Your task to perform on an android device: check the backup settings in the google photos Image 0: 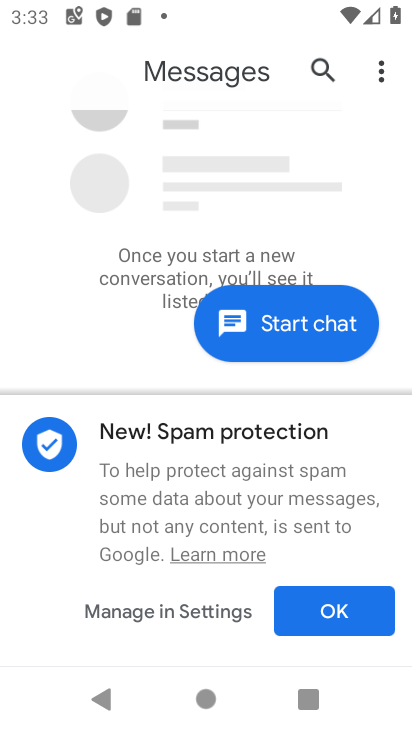
Step 0: press home button
Your task to perform on an android device: check the backup settings in the google photos Image 1: 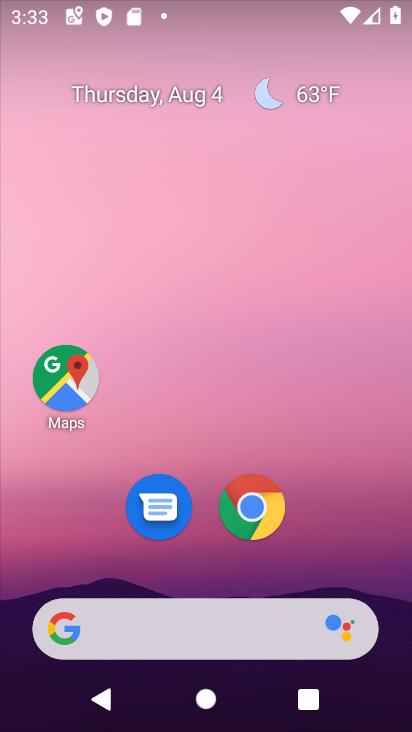
Step 1: drag from (62, 650) to (263, 89)
Your task to perform on an android device: check the backup settings in the google photos Image 2: 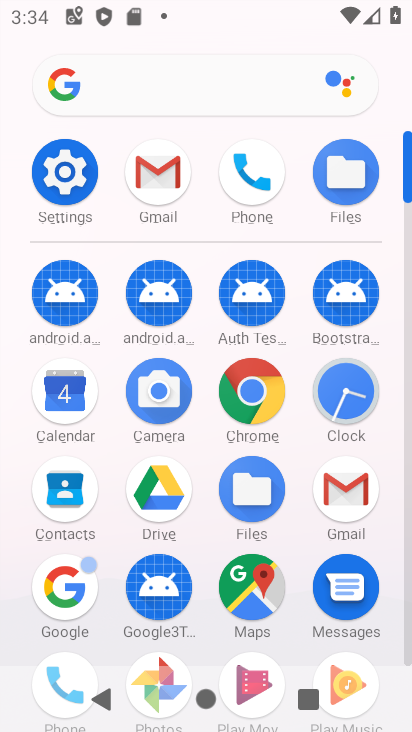
Step 2: drag from (23, 596) to (171, 0)
Your task to perform on an android device: check the backup settings in the google photos Image 3: 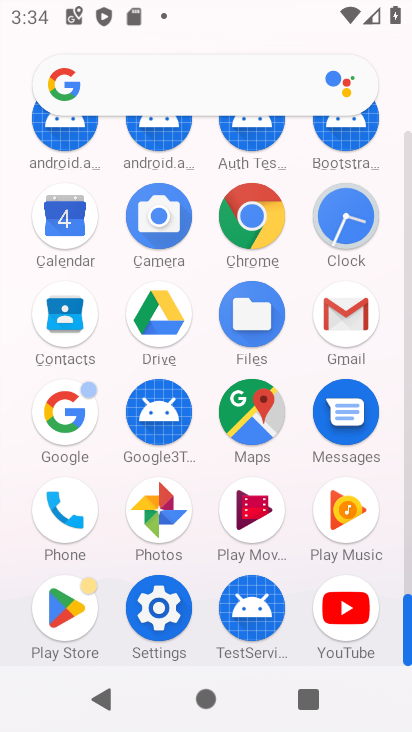
Step 3: click (164, 504)
Your task to perform on an android device: check the backup settings in the google photos Image 4: 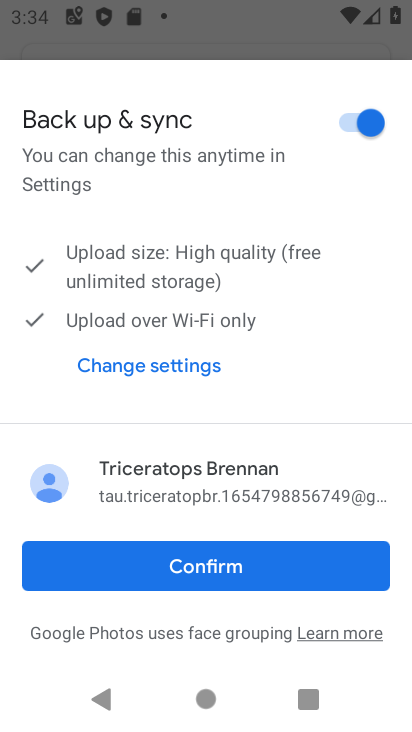
Step 4: click (233, 556)
Your task to perform on an android device: check the backup settings in the google photos Image 5: 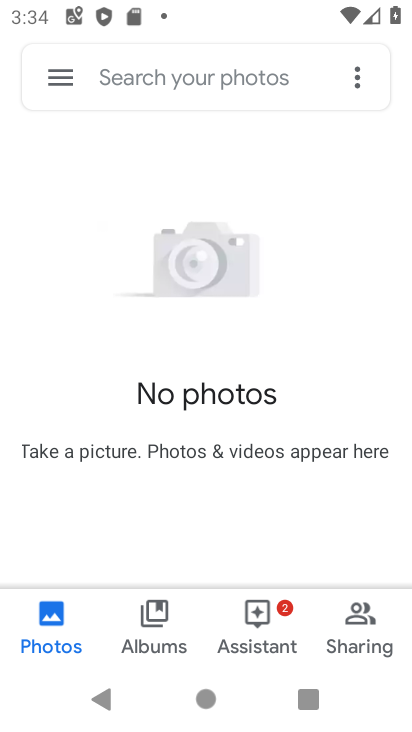
Step 5: click (55, 66)
Your task to perform on an android device: check the backup settings in the google photos Image 6: 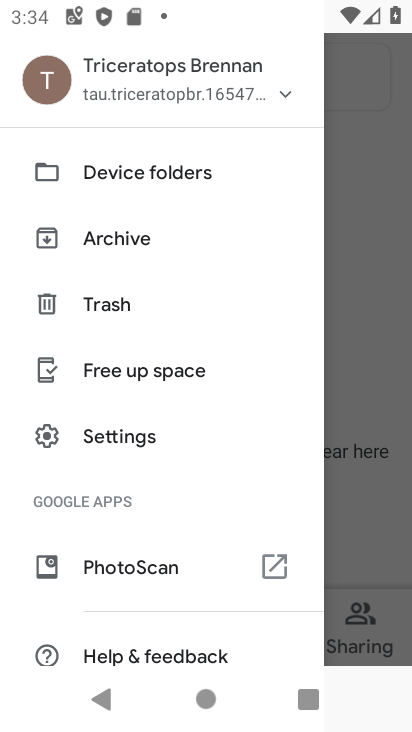
Step 6: click (105, 441)
Your task to perform on an android device: check the backup settings in the google photos Image 7: 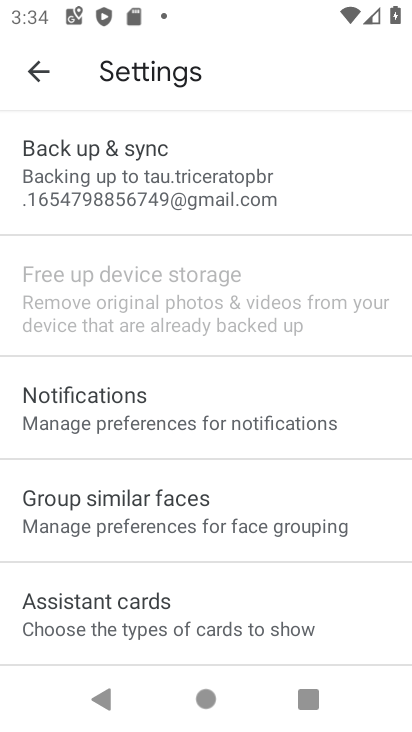
Step 7: click (161, 184)
Your task to perform on an android device: check the backup settings in the google photos Image 8: 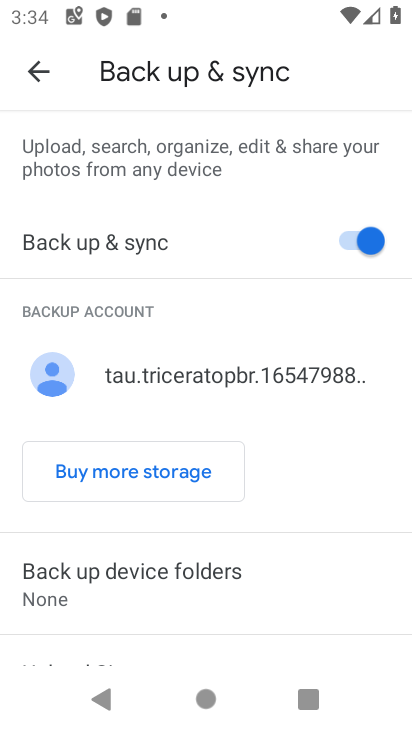
Step 8: task complete